Your task to perform on an android device: toggle notification dots Image 0: 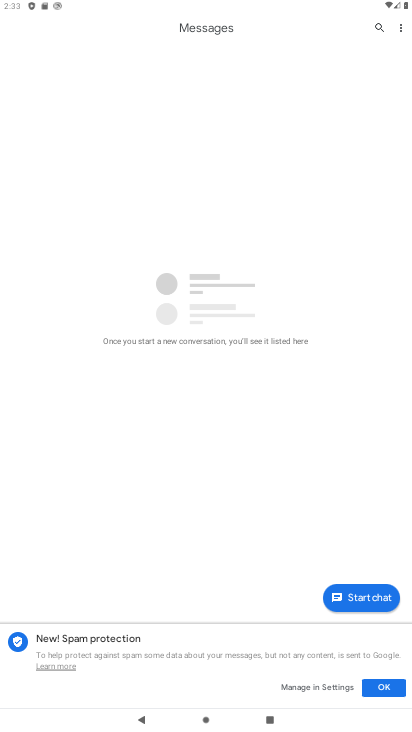
Step 0: press back button
Your task to perform on an android device: toggle notification dots Image 1: 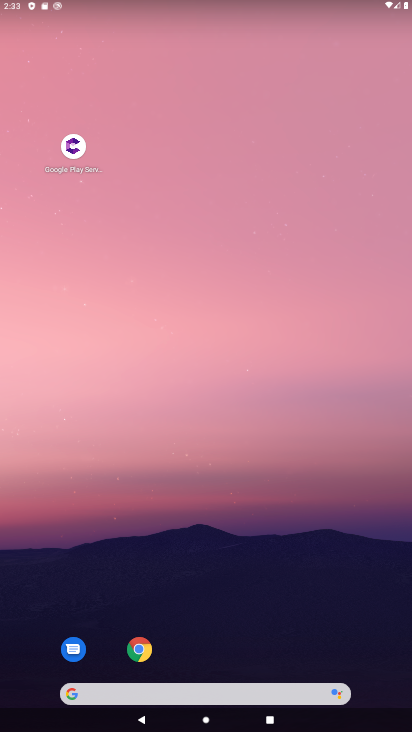
Step 1: drag from (231, 671) to (236, 33)
Your task to perform on an android device: toggle notification dots Image 2: 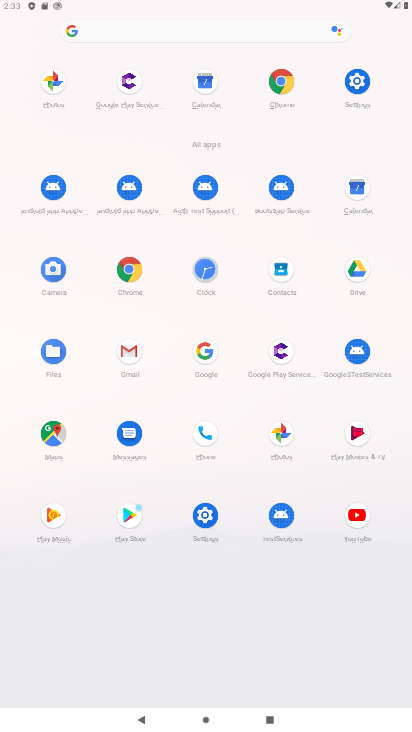
Step 2: click (355, 85)
Your task to perform on an android device: toggle notification dots Image 3: 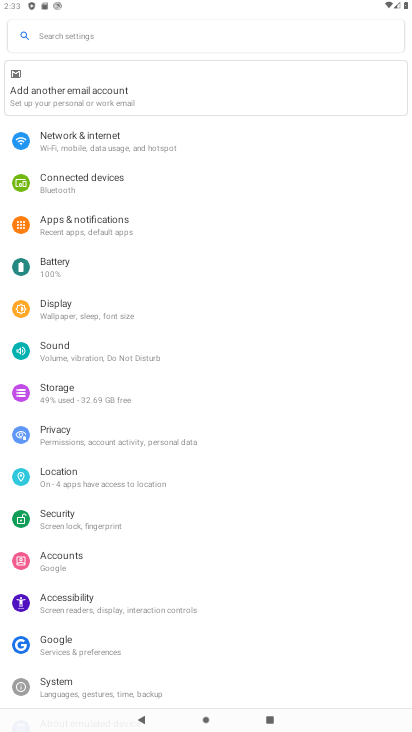
Step 3: click (101, 230)
Your task to perform on an android device: toggle notification dots Image 4: 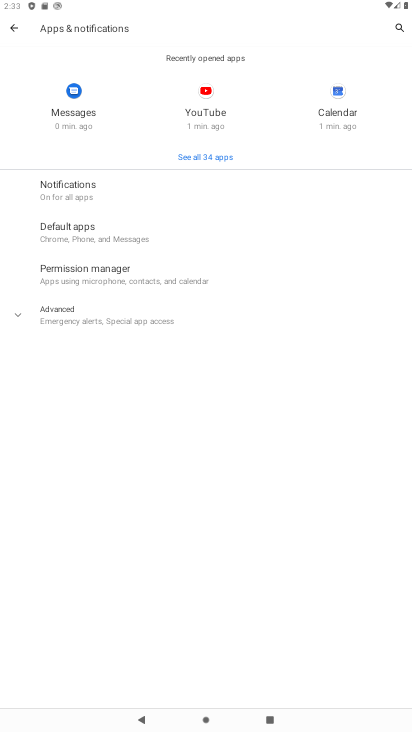
Step 4: click (109, 201)
Your task to perform on an android device: toggle notification dots Image 5: 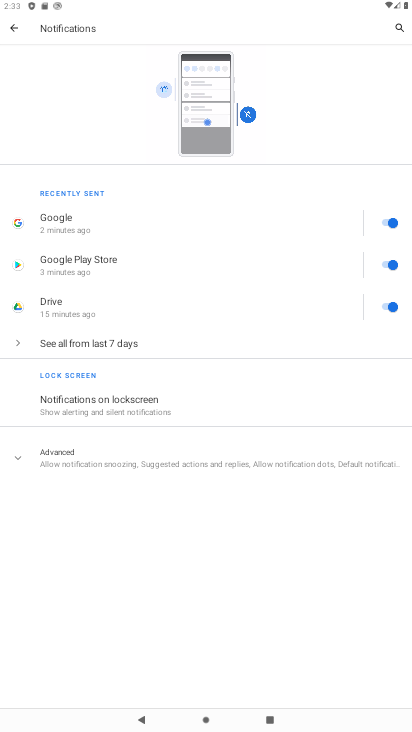
Step 5: click (88, 460)
Your task to perform on an android device: toggle notification dots Image 6: 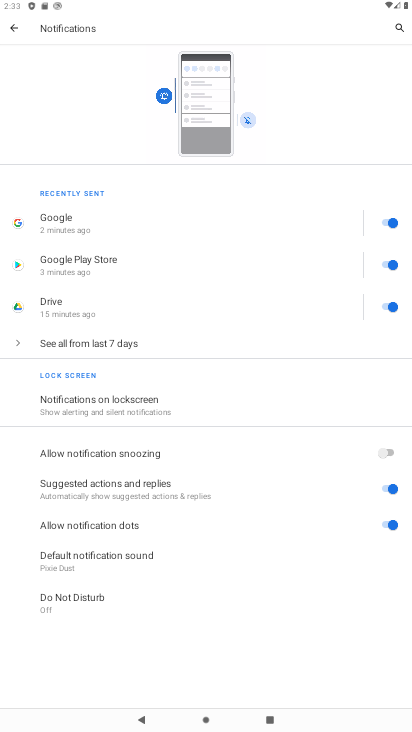
Step 6: click (389, 525)
Your task to perform on an android device: toggle notification dots Image 7: 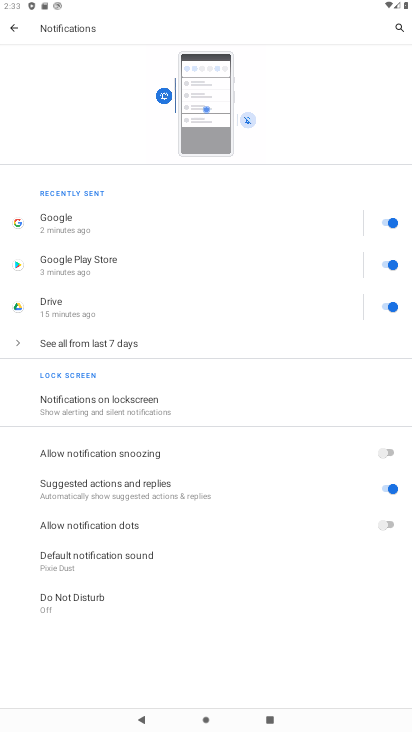
Step 7: task complete